Your task to perform on an android device: Open sound settings Image 0: 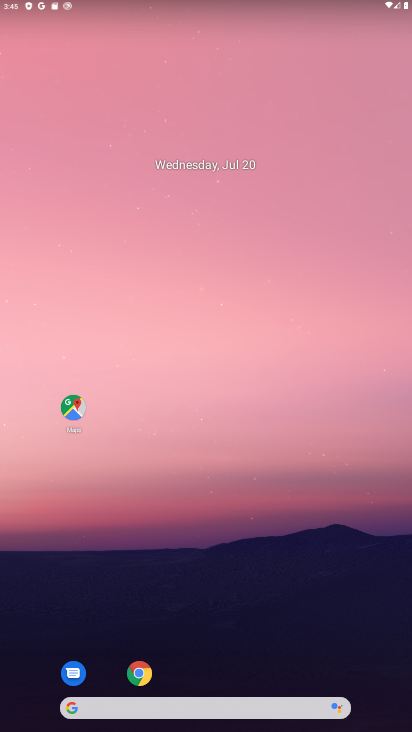
Step 0: press home button
Your task to perform on an android device: Open sound settings Image 1: 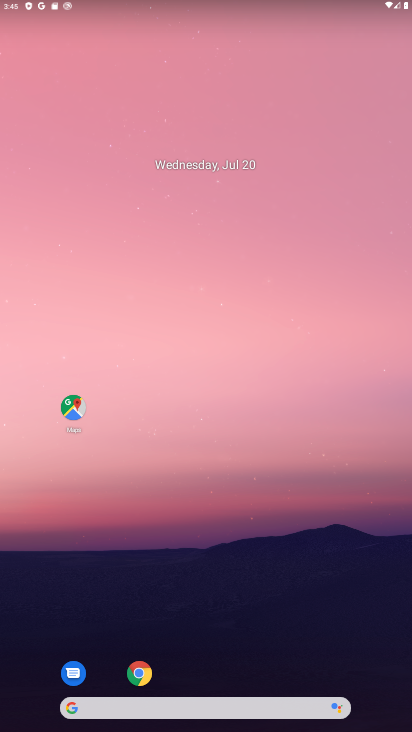
Step 1: click (240, 37)
Your task to perform on an android device: Open sound settings Image 2: 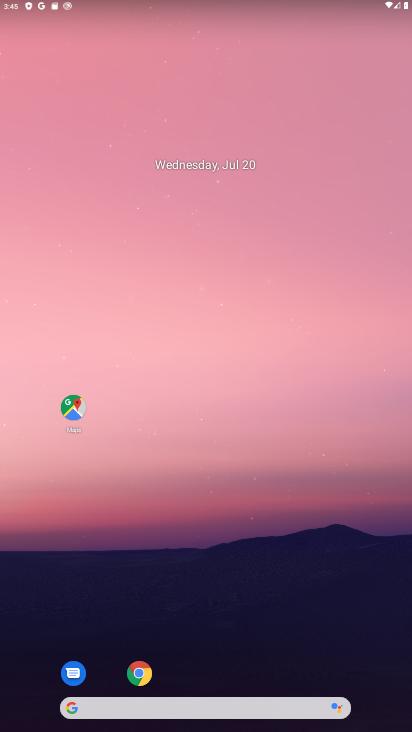
Step 2: drag from (267, 517) to (264, 30)
Your task to perform on an android device: Open sound settings Image 3: 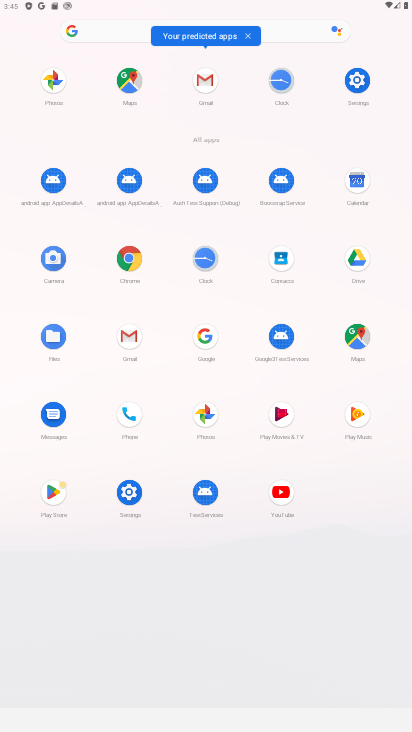
Step 3: click (345, 84)
Your task to perform on an android device: Open sound settings Image 4: 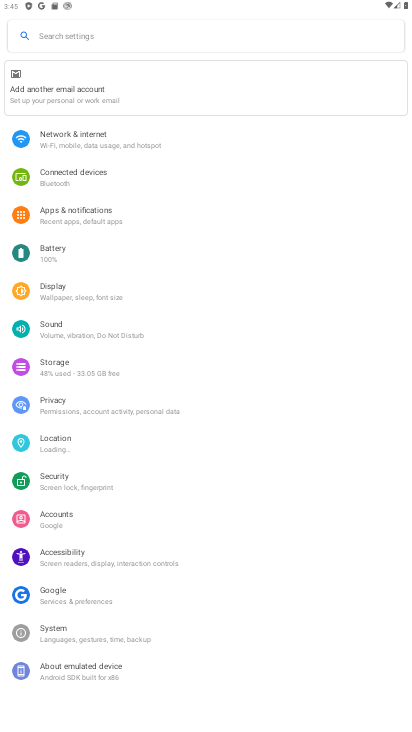
Step 4: click (63, 332)
Your task to perform on an android device: Open sound settings Image 5: 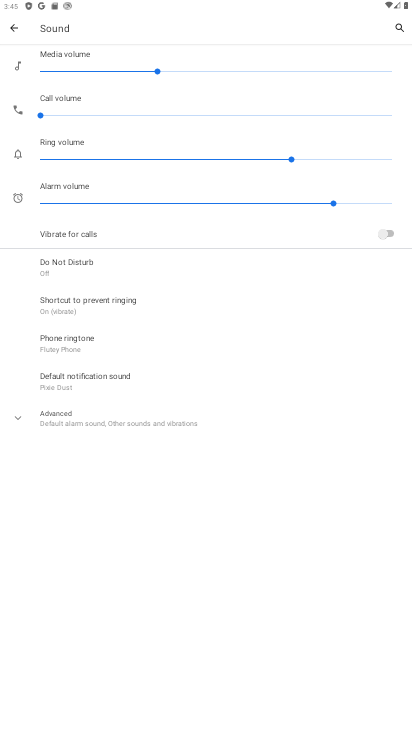
Step 5: task complete